Your task to perform on an android device: turn on airplane mode Image 0: 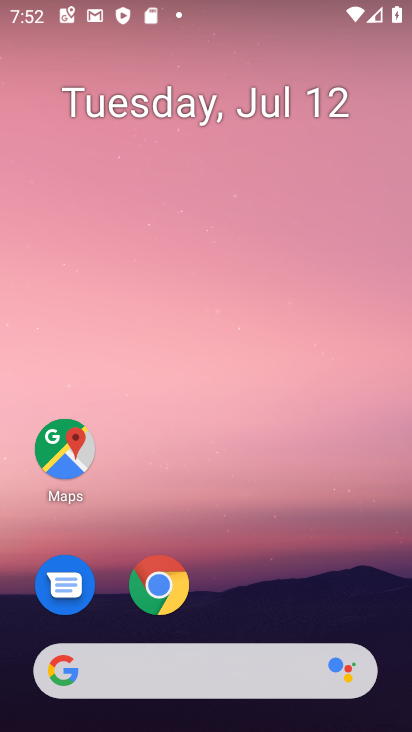
Step 0: drag from (287, 582) to (303, 8)
Your task to perform on an android device: turn on airplane mode Image 1: 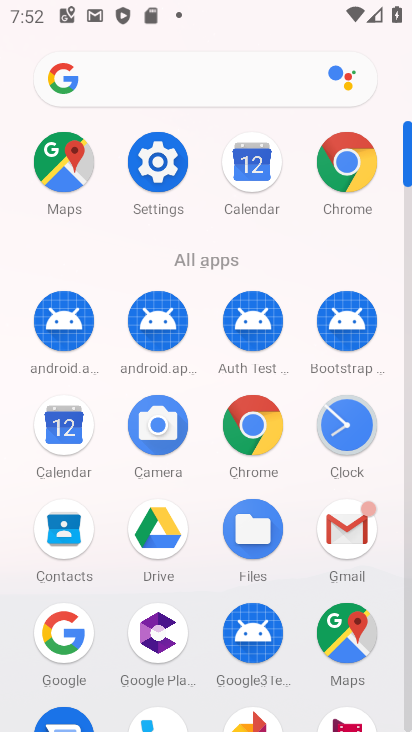
Step 1: click (170, 170)
Your task to perform on an android device: turn on airplane mode Image 2: 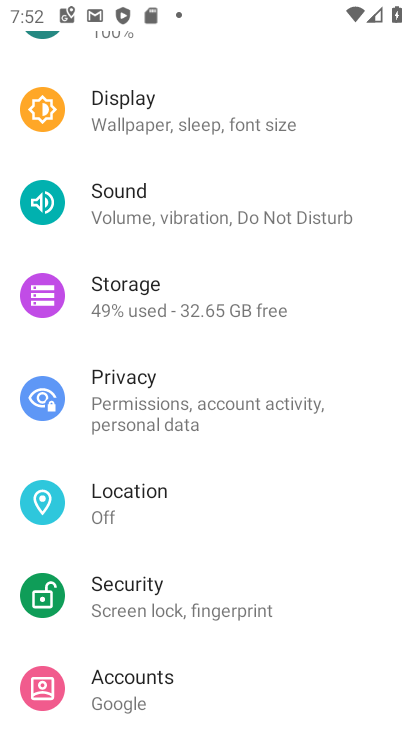
Step 2: drag from (212, 317) to (235, 681)
Your task to perform on an android device: turn on airplane mode Image 3: 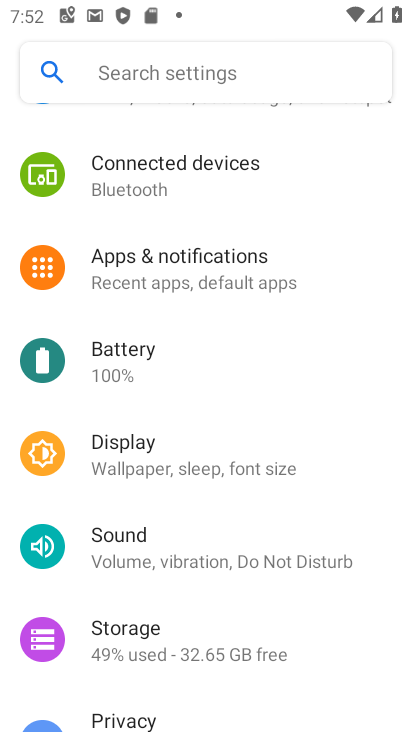
Step 3: drag from (198, 381) to (207, 626)
Your task to perform on an android device: turn on airplane mode Image 4: 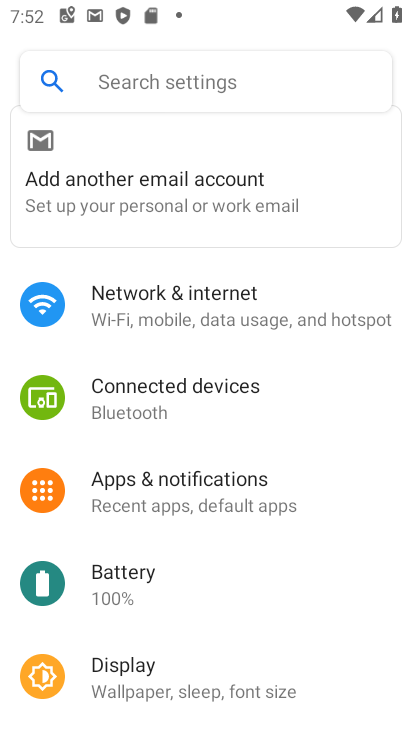
Step 4: click (212, 313)
Your task to perform on an android device: turn on airplane mode Image 5: 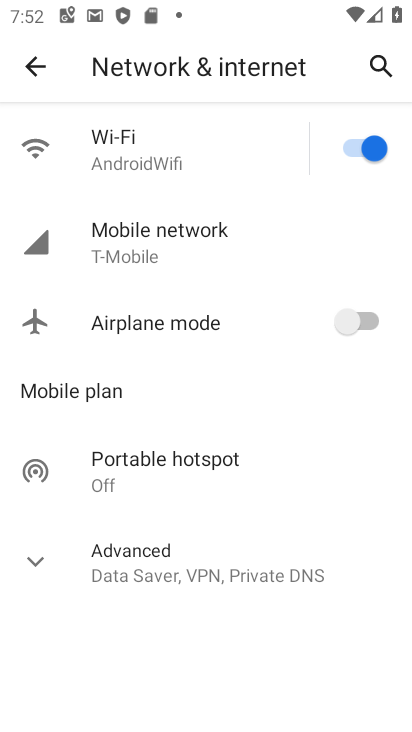
Step 5: click (356, 312)
Your task to perform on an android device: turn on airplane mode Image 6: 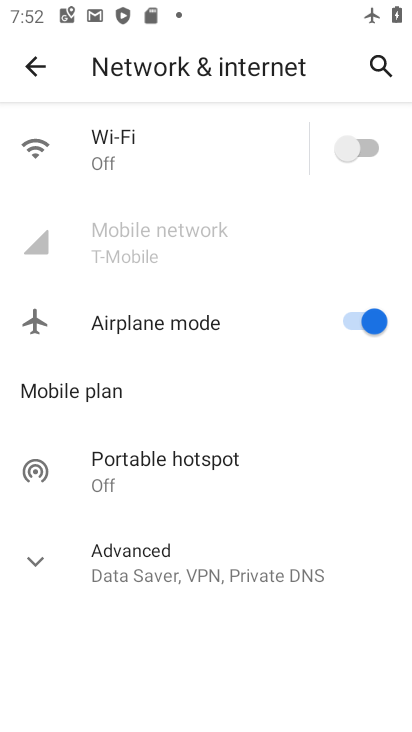
Step 6: task complete